Your task to perform on an android device: Go to Reddit.com Image 0: 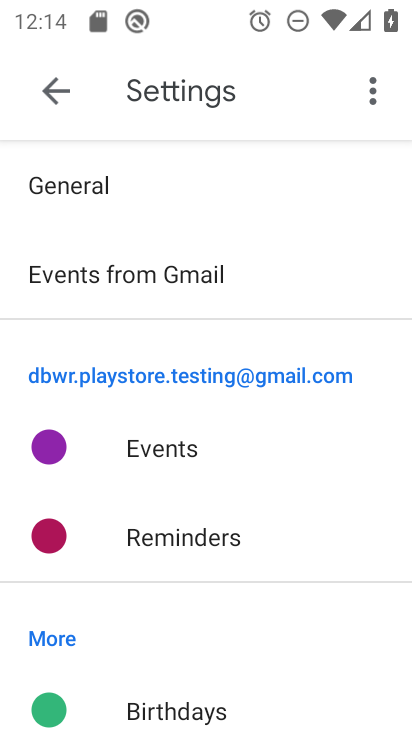
Step 0: press home button
Your task to perform on an android device: Go to Reddit.com Image 1: 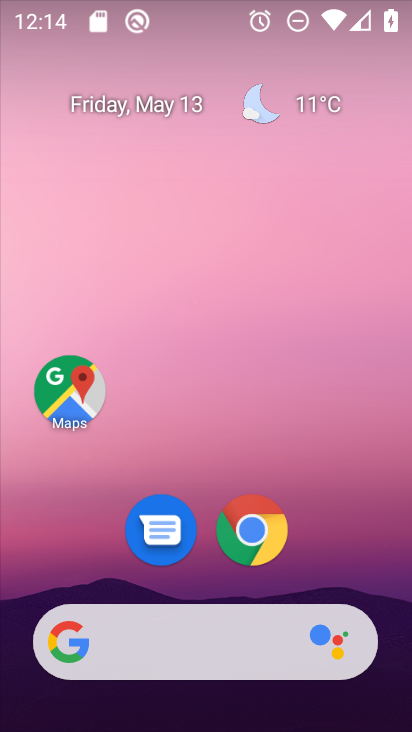
Step 1: click (244, 536)
Your task to perform on an android device: Go to Reddit.com Image 2: 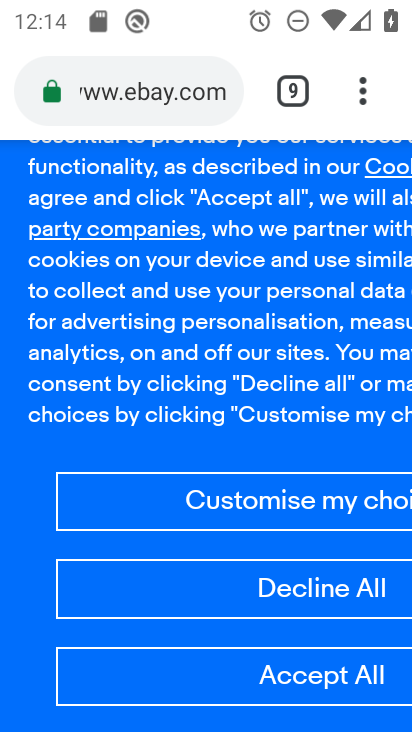
Step 2: drag from (360, 88) to (239, 169)
Your task to perform on an android device: Go to Reddit.com Image 3: 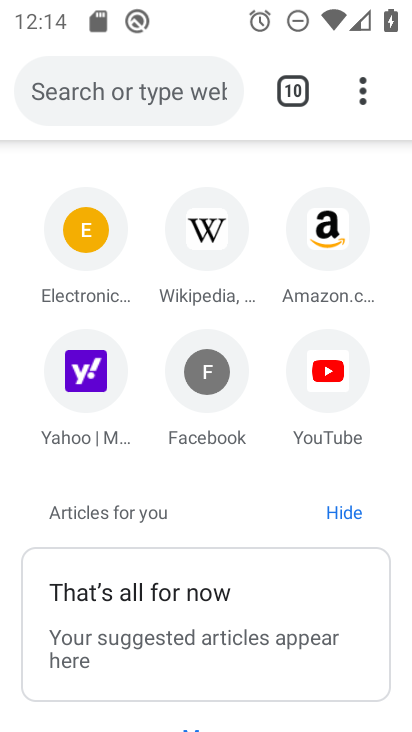
Step 3: click (169, 93)
Your task to perform on an android device: Go to Reddit.com Image 4: 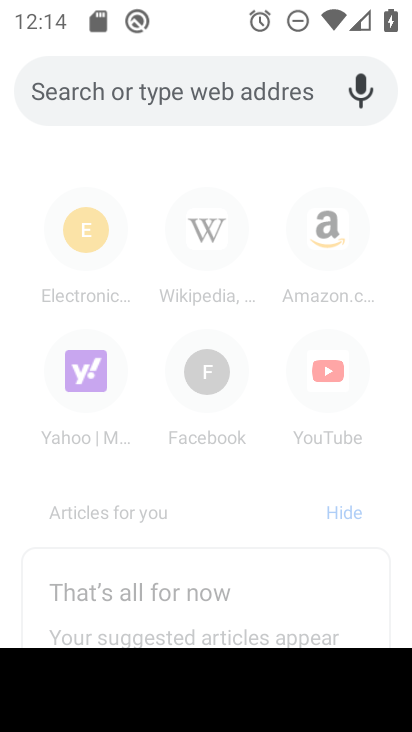
Step 4: type "reddit.com"
Your task to perform on an android device: Go to Reddit.com Image 5: 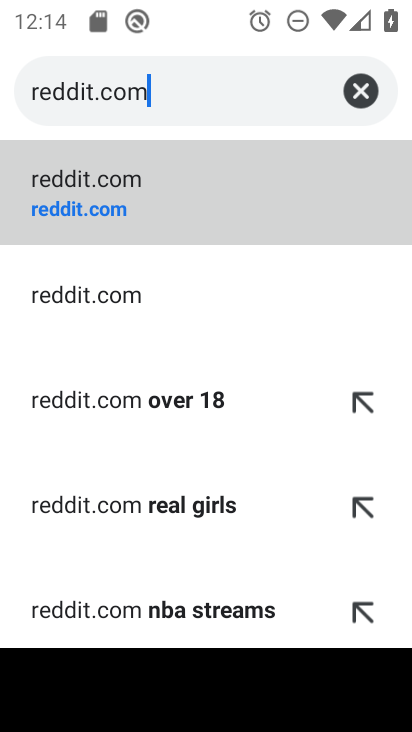
Step 5: click (110, 207)
Your task to perform on an android device: Go to Reddit.com Image 6: 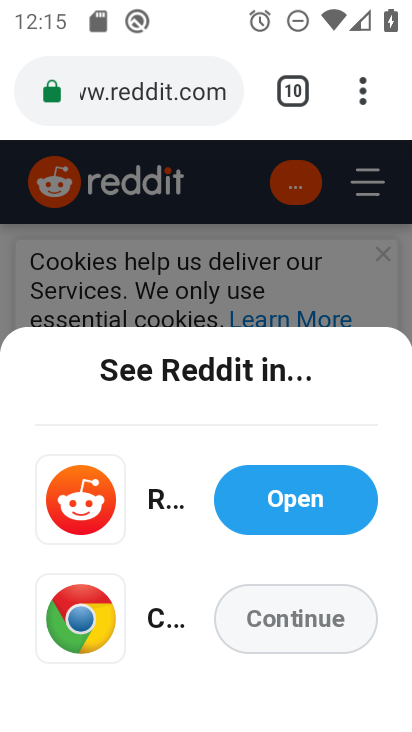
Step 6: task complete